Your task to perform on an android device: remove spam from my inbox in the gmail app Image 0: 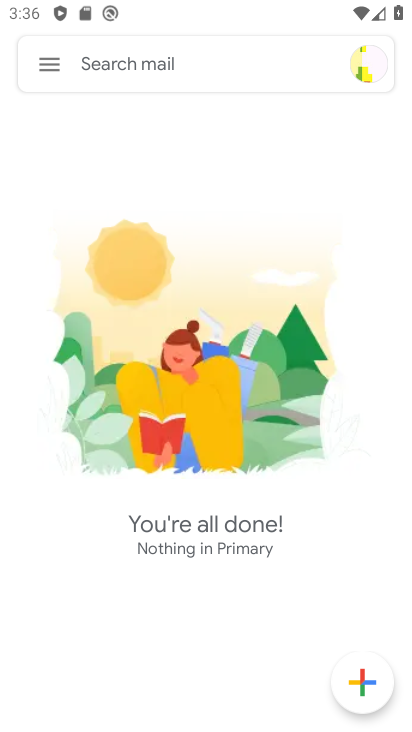
Step 0: click (61, 64)
Your task to perform on an android device: remove spam from my inbox in the gmail app Image 1: 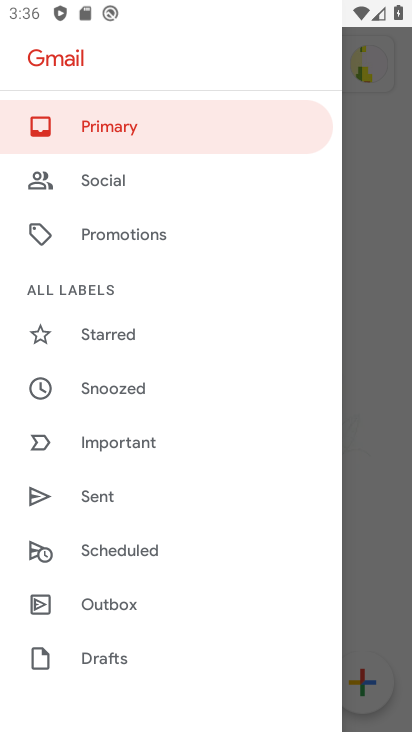
Step 1: drag from (192, 502) to (104, 187)
Your task to perform on an android device: remove spam from my inbox in the gmail app Image 2: 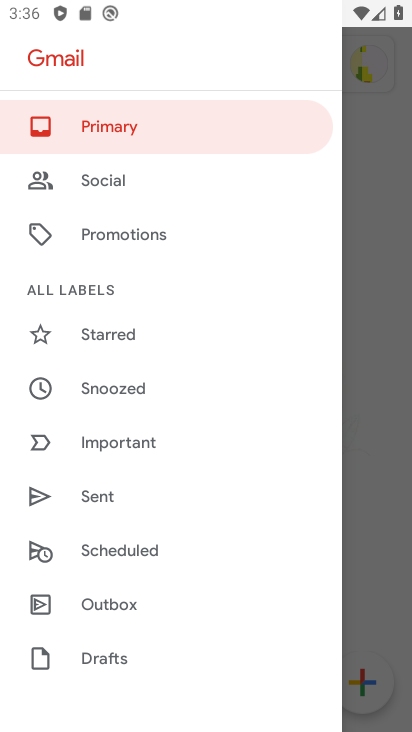
Step 2: drag from (134, 571) to (152, 202)
Your task to perform on an android device: remove spam from my inbox in the gmail app Image 3: 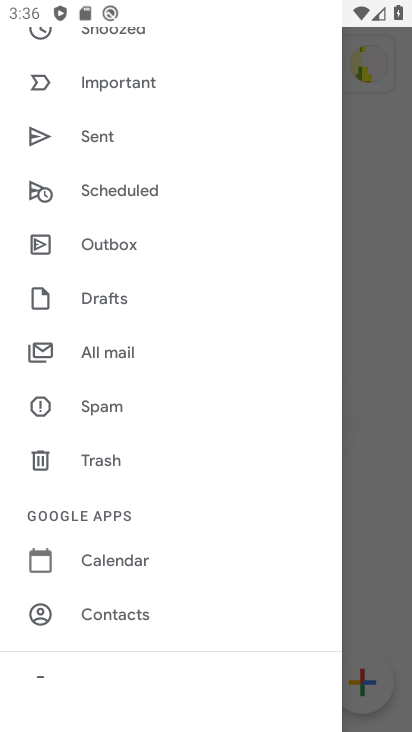
Step 3: click (111, 415)
Your task to perform on an android device: remove spam from my inbox in the gmail app Image 4: 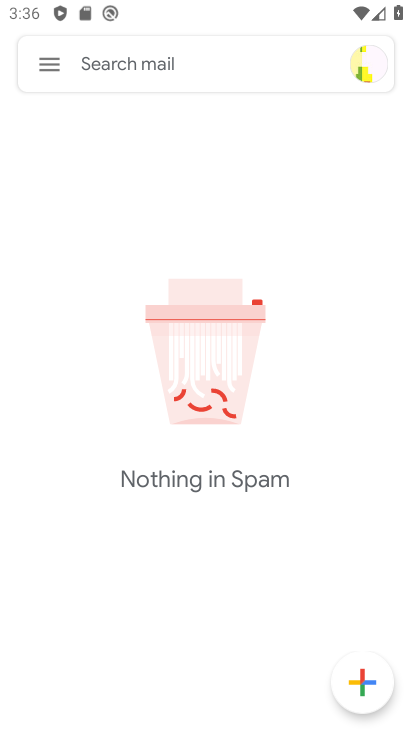
Step 4: task complete